Your task to perform on an android device: Show me popular videos on Youtube Image 0: 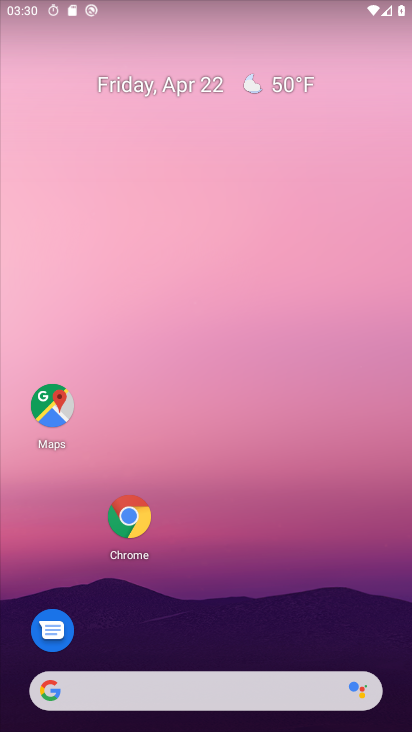
Step 0: drag from (378, 645) to (351, 219)
Your task to perform on an android device: Show me popular videos on Youtube Image 1: 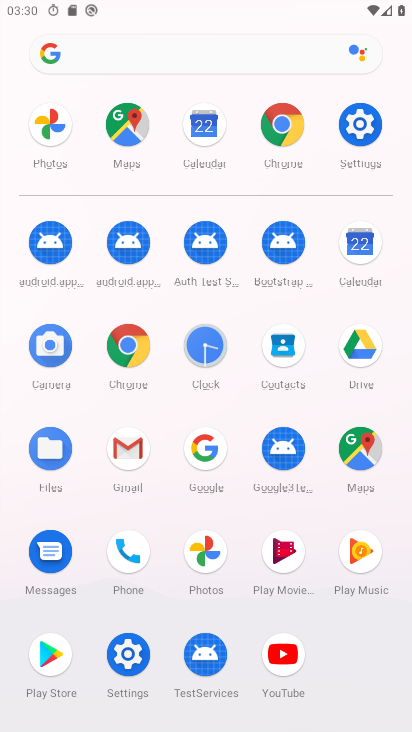
Step 1: click (277, 658)
Your task to perform on an android device: Show me popular videos on Youtube Image 2: 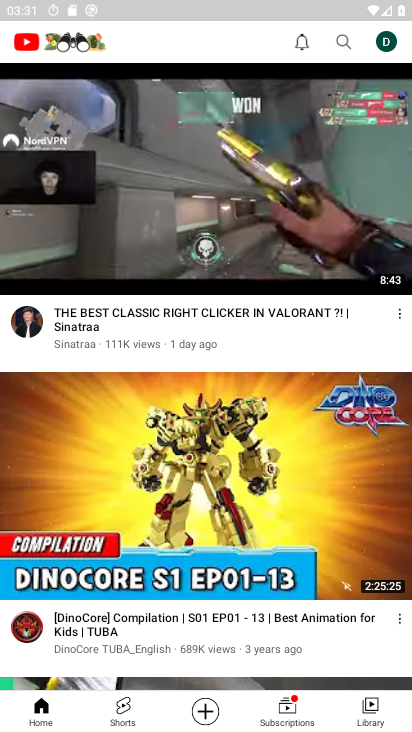
Step 2: click (342, 38)
Your task to perform on an android device: Show me popular videos on Youtube Image 3: 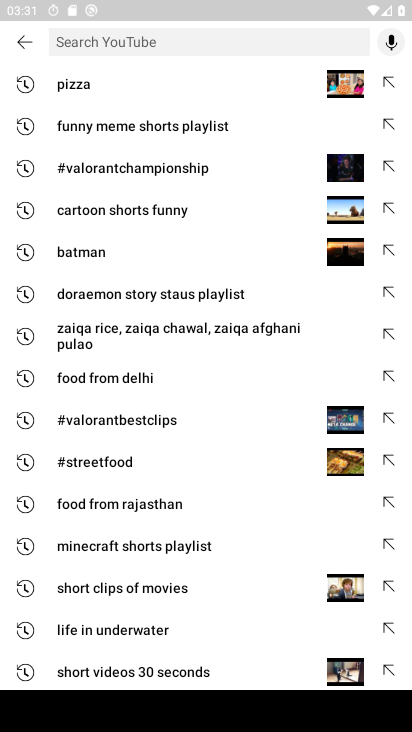
Step 3: type " popular videos "
Your task to perform on an android device: Show me popular videos on Youtube Image 4: 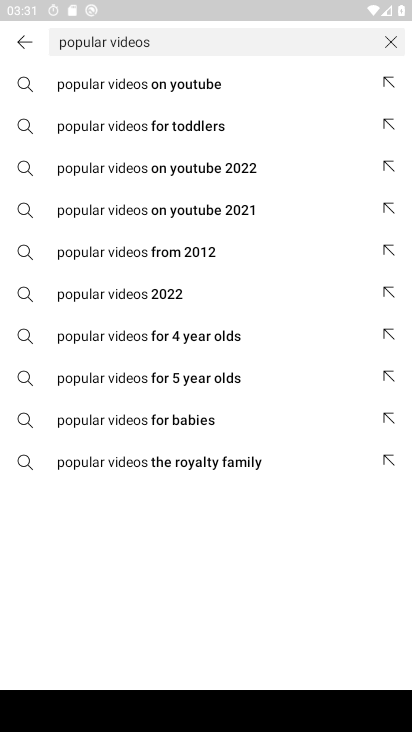
Step 4: click (84, 81)
Your task to perform on an android device: Show me popular videos on Youtube Image 5: 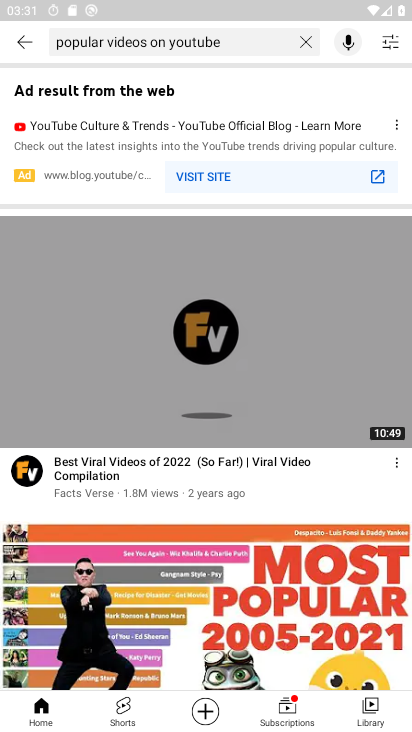
Step 5: task complete